Your task to perform on an android device: turn notification dots on Image 0: 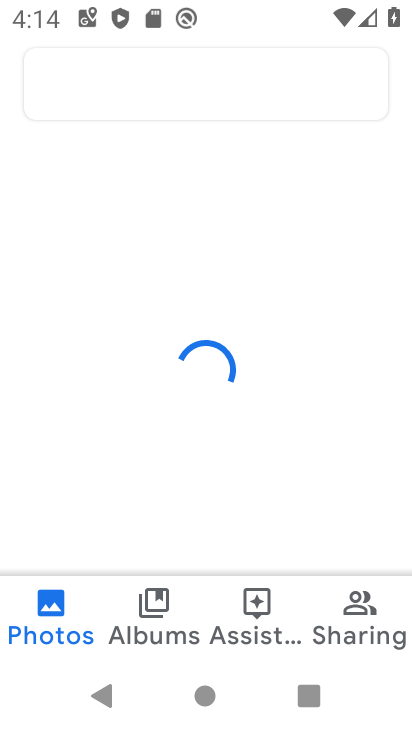
Step 0: press home button
Your task to perform on an android device: turn notification dots on Image 1: 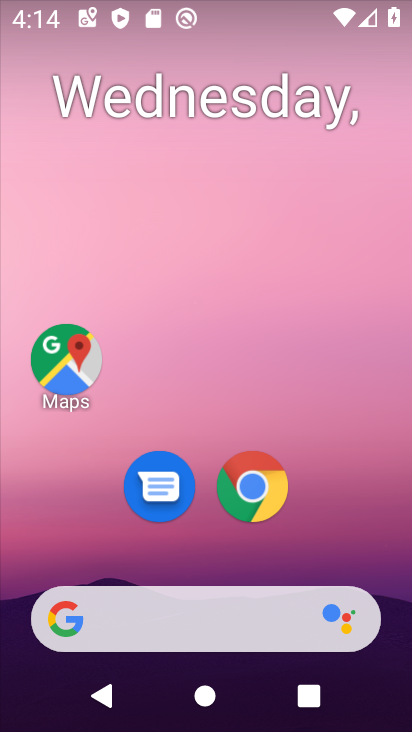
Step 1: drag from (223, 610) to (269, 173)
Your task to perform on an android device: turn notification dots on Image 2: 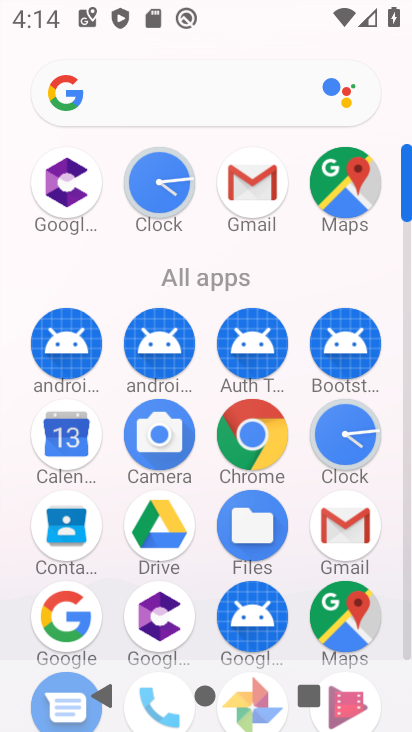
Step 2: drag from (235, 534) to (241, 310)
Your task to perform on an android device: turn notification dots on Image 3: 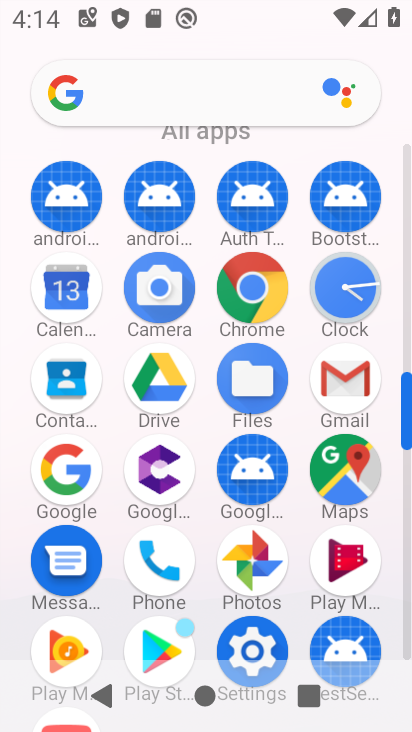
Step 3: drag from (254, 533) to (244, 375)
Your task to perform on an android device: turn notification dots on Image 4: 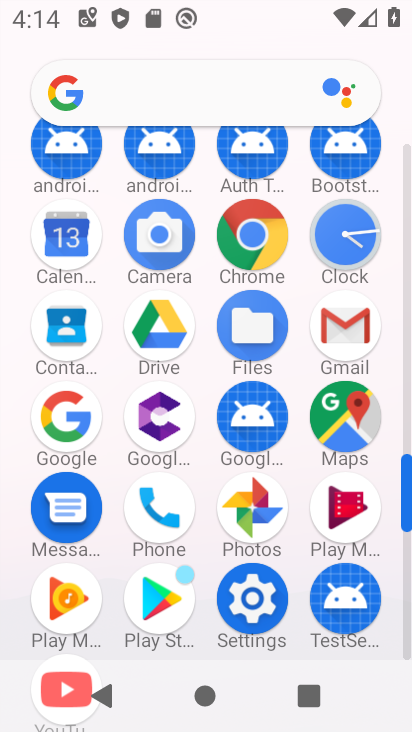
Step 4: click (245, 619)
Your task to perform on an android device: turn notification dots on Image 5: 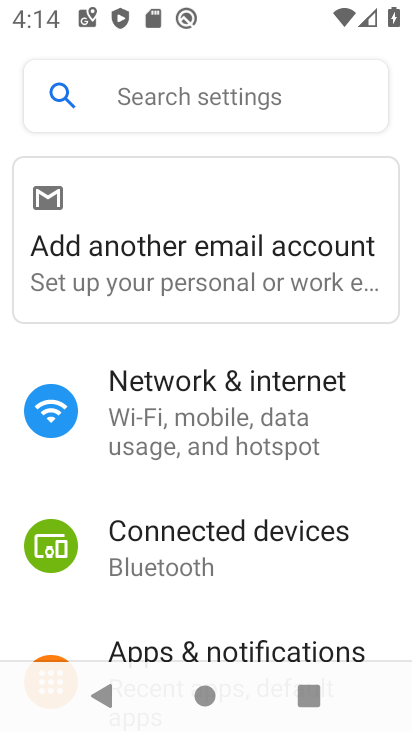
Step 5: click (291, 654)
Your task to perform on an android device: turn notification dots on Image 6: 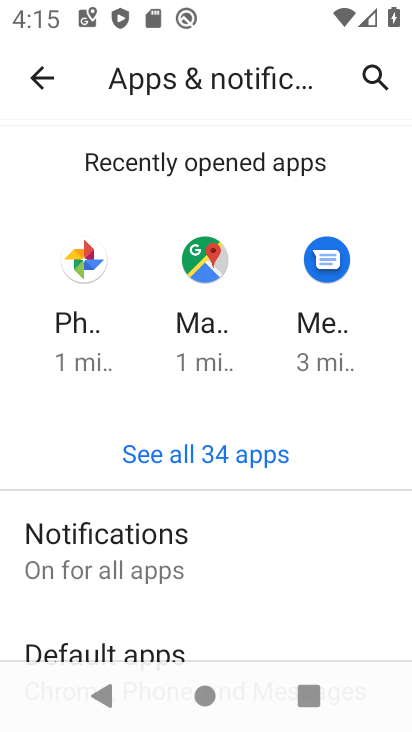
Step 6: drag from (179, 406) to (166, 234)
Your task to perform on an android device: turn notification dots on Image 7: 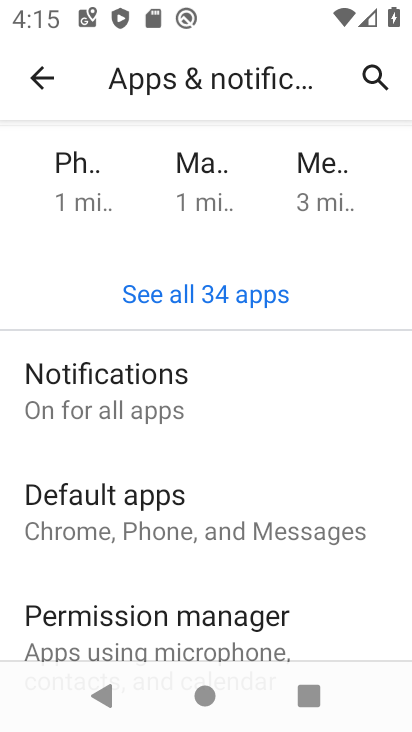
Step 7: click (143, 406)
Your task to perform on an android device: turn notification dots on Image 8: 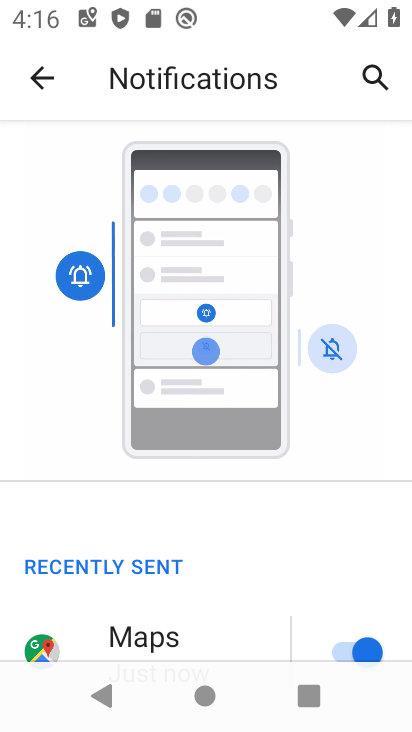
Step 8: drag from (208, 514) to (266, 22)
Your task to perform on an android device: turn notification dots on Image 9: 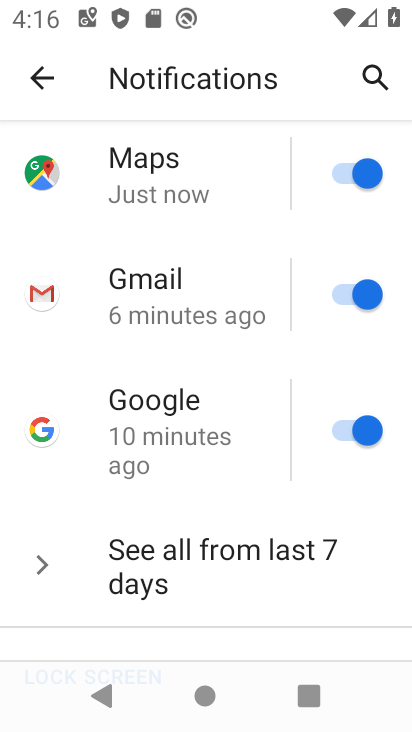
Step 9: drag from (205, 505) to (149, 119)
Your task to perform on an android device: turn notification dots on Image 10: 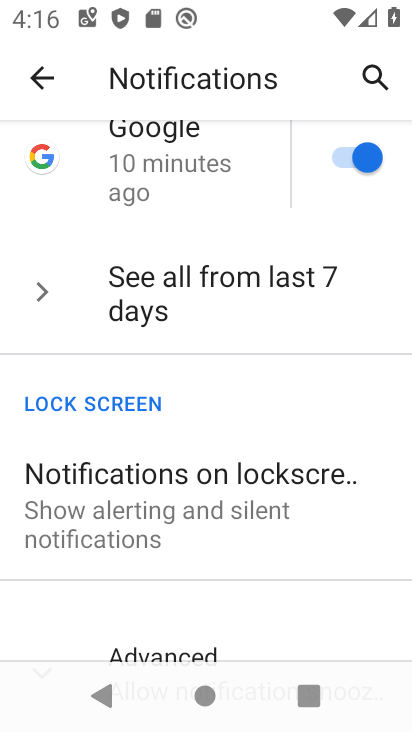
Step 10: drag from (161, 552) to (178, 299)
Your task to perform on an android device: turn notification dots on Image 11: 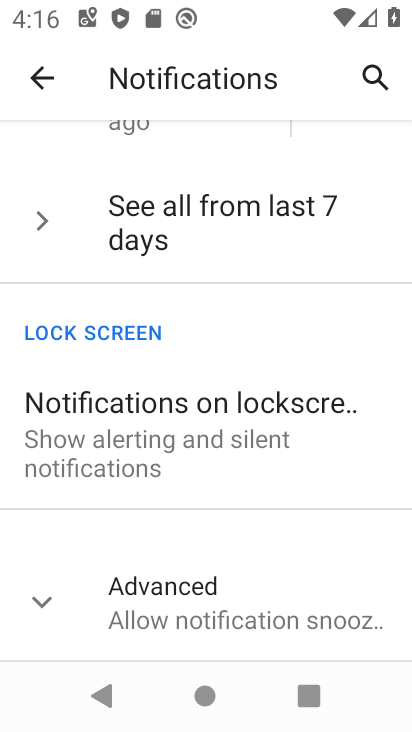
Step 11: click (226, 625)
Your task to perform on an android device: turn notification dots on Image 12: 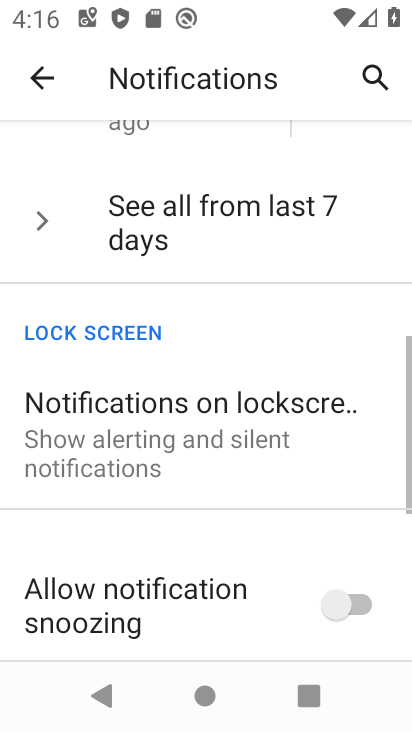
Step 12: task complete